Your task to perform on an android device: Clear the shopping cart on costco. Add logitech g pro to the cart on costco, then select checkout. Image 0: 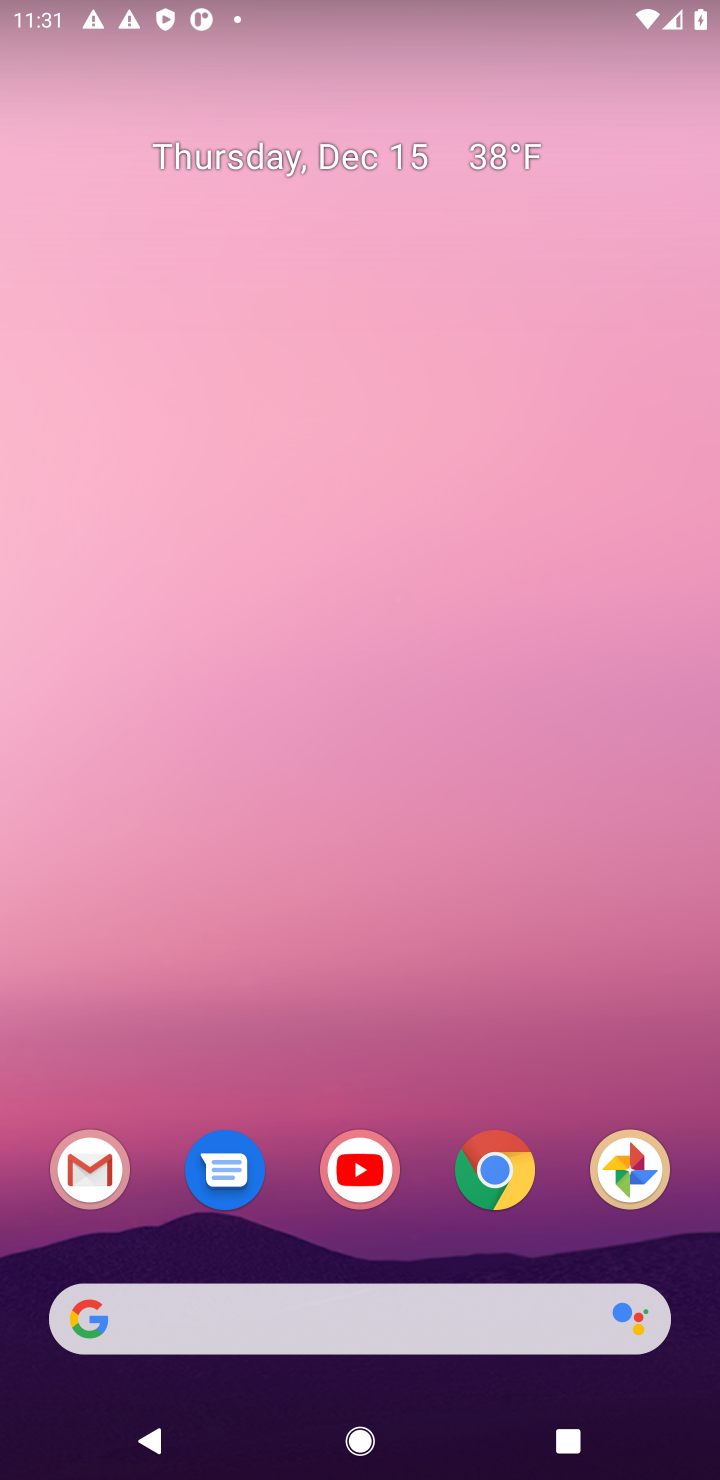
Step 0: click (496, 1183)
Your task to perform on an android device: Clear the shopping cart on costco. Add logitech g pro to the cart on costco, then select checkout. Image 1: 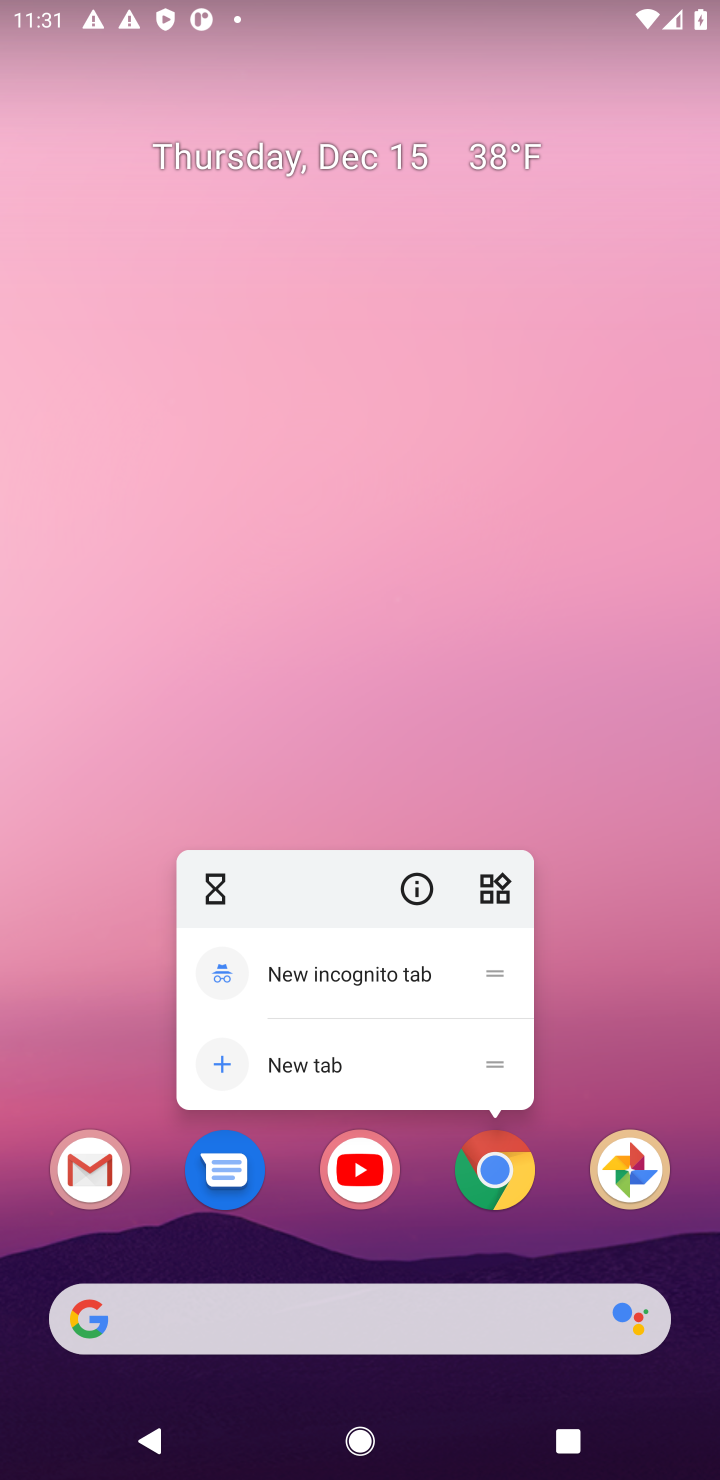
Step 1: click (497, 1183)
Your task to perform on an android device: Clear the shopping cart on costco. Add logitech g pro to the cart on costco, then select checkout. Image 2: 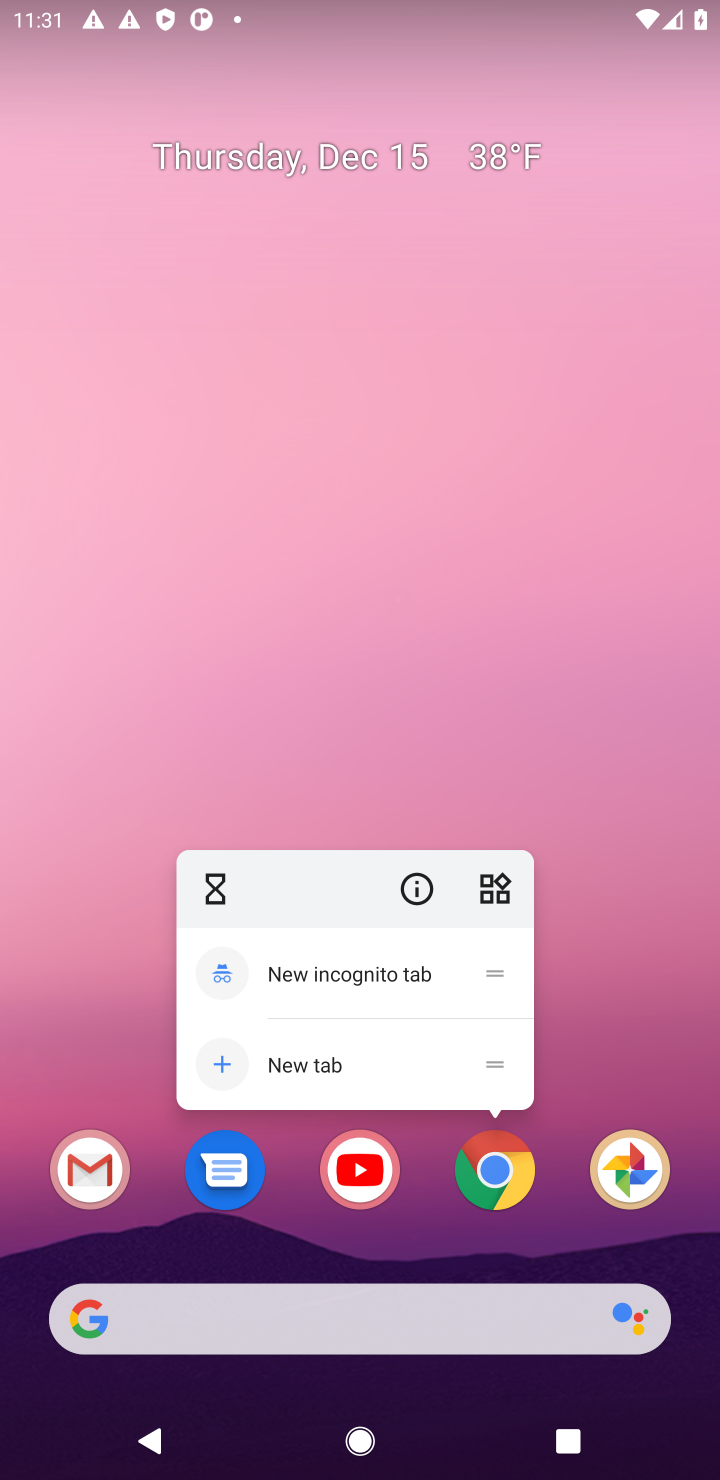
Step 2: click (497, 1183)
Your task to perform on an android device: Clear the shopping cart on costco. Add logitech g pro to the cart on costco, then select checkout. Image 3: 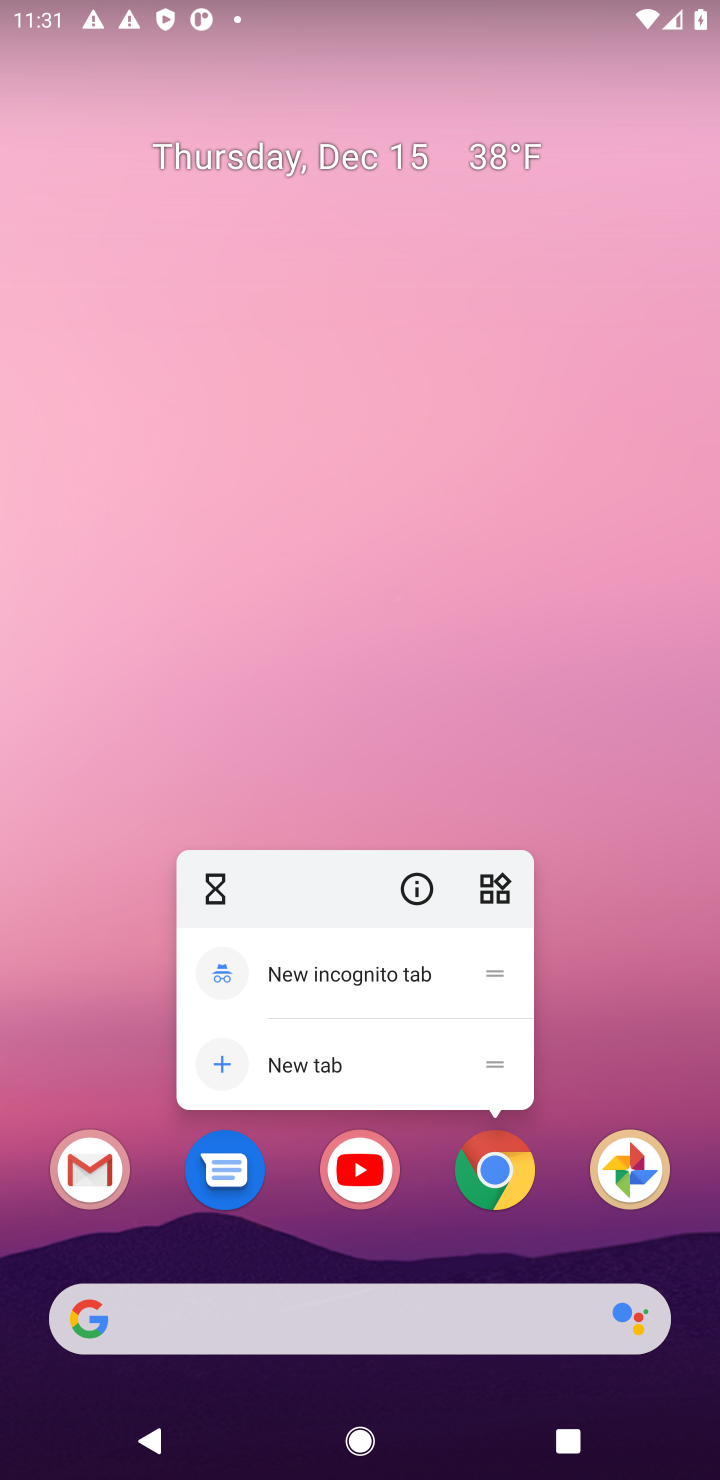
Step 3: click (503, 1173)
Your task to perform on an android device: Clear the shopping cart on costco. Add logitech g pro to the cart on costco, then select checkout. Image 4: 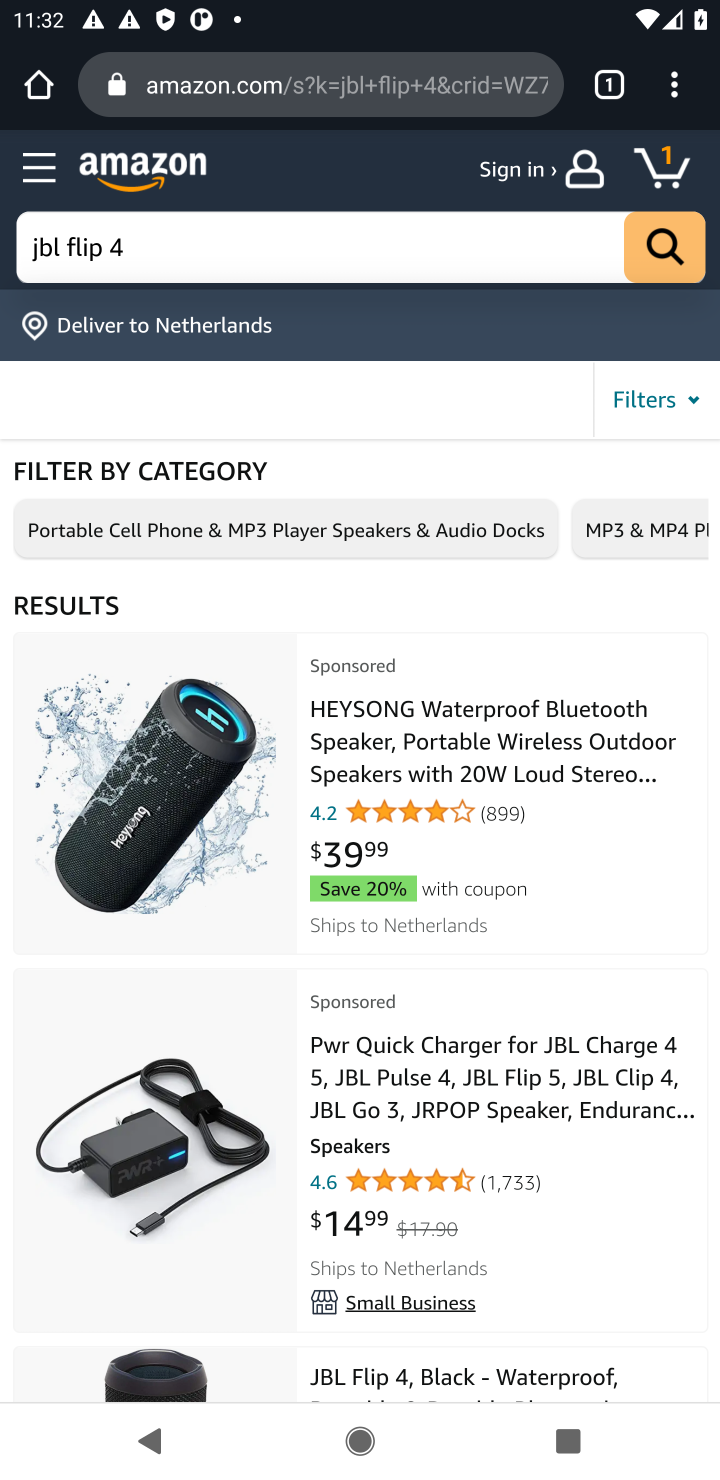
Step 4: click (229, 98)
Your task to perform on an android device: Clear the shopping cart on costco. Add logitech g pro to the cart on costco, then select checkout. Image 5: 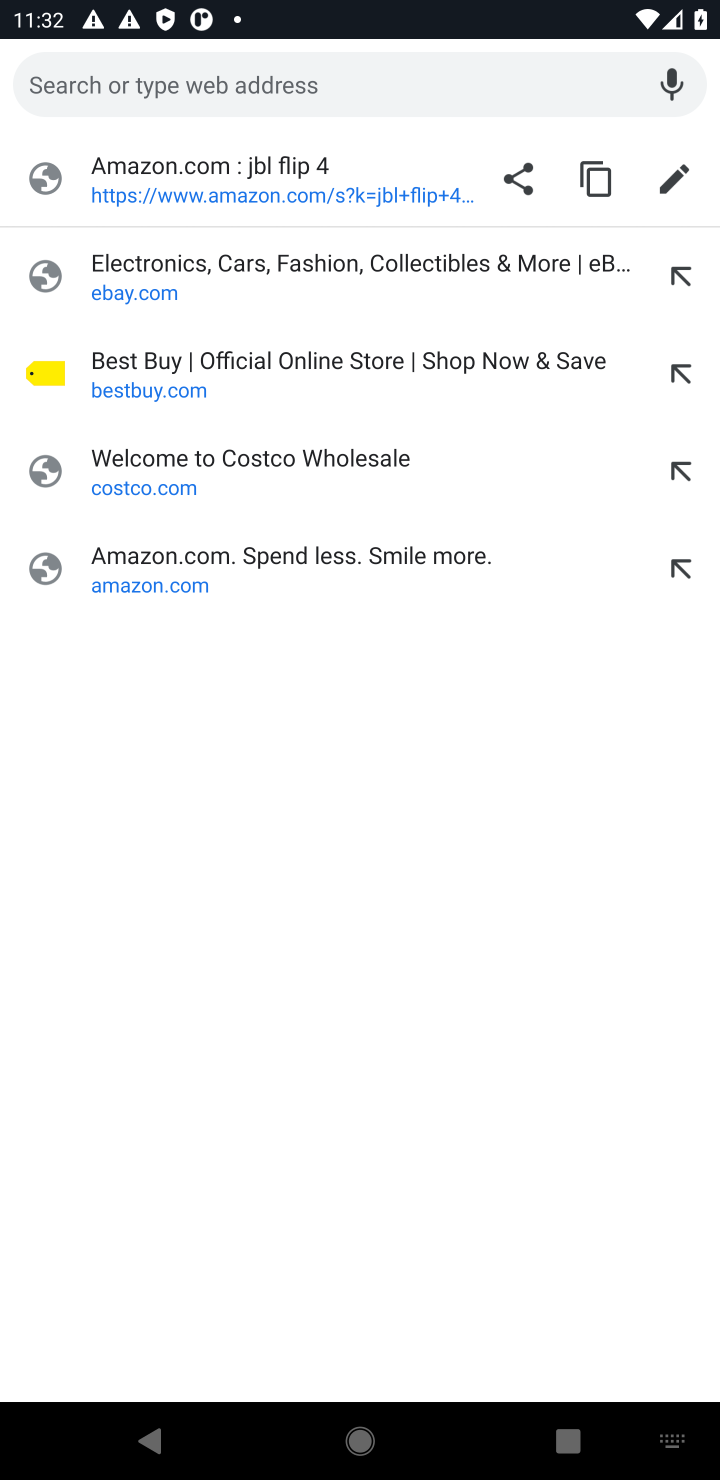
Step 5: click (102, 458)
Your task to perform on an android device: Clear the shopping cart on costco. Add logitech g pro to the cart on costco, then select checkout. Image 6: 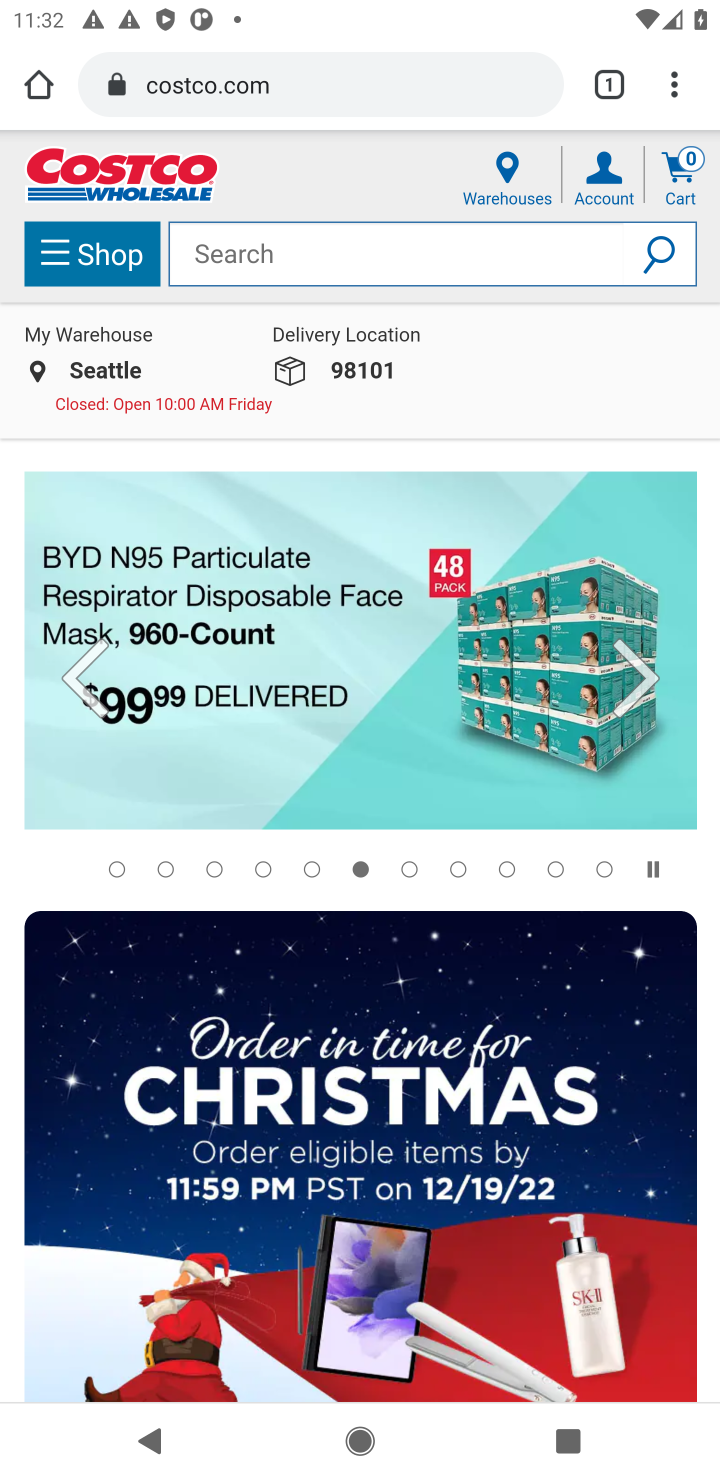
Step 6: click (689, 187)
Your task to perform on an android device: Clear the shopping cart on costco. Add logitech g pro to the cart on costco, then select checkout. Image 7: 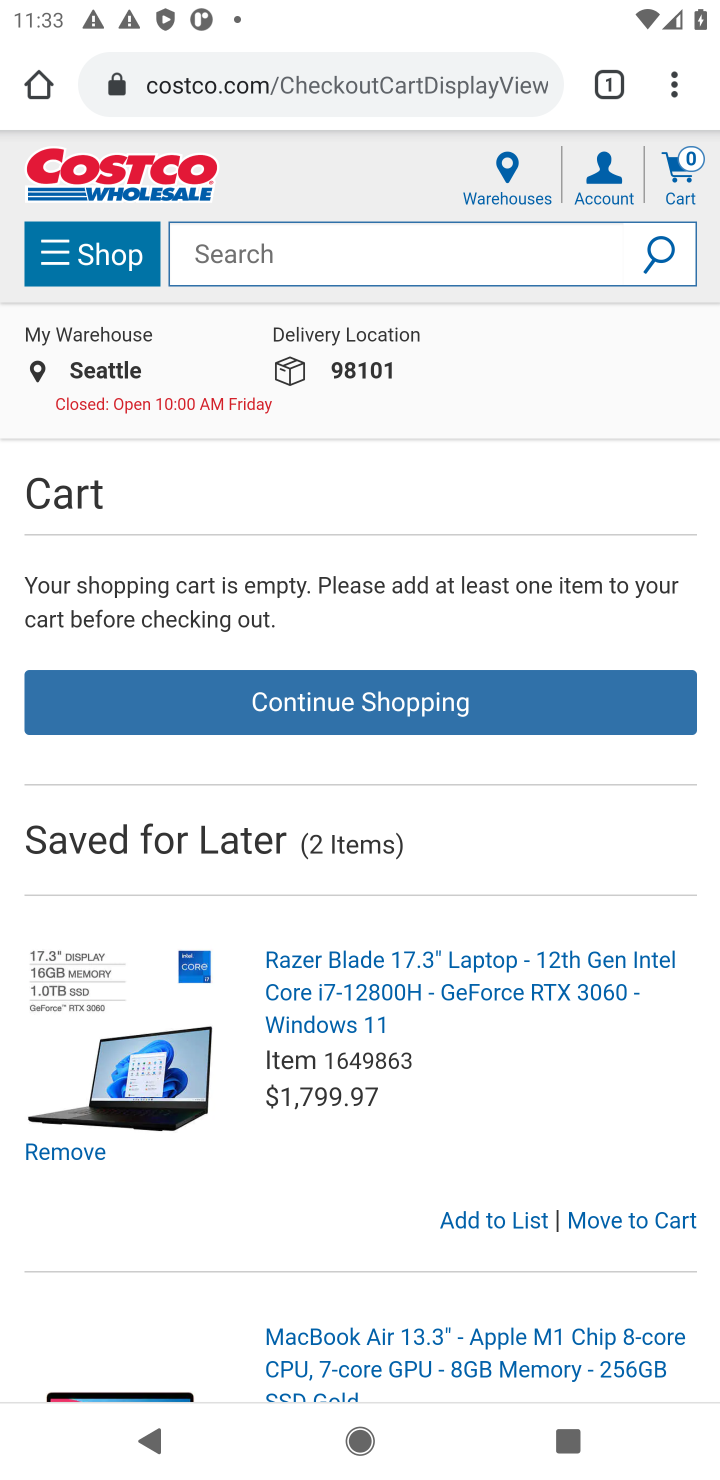
Step 7: click (258, 265)
Your task to perform on an android device: Clear the shopping cart on costco. Add logitech g pro to the cart on costco, then select checkout. Image 8: 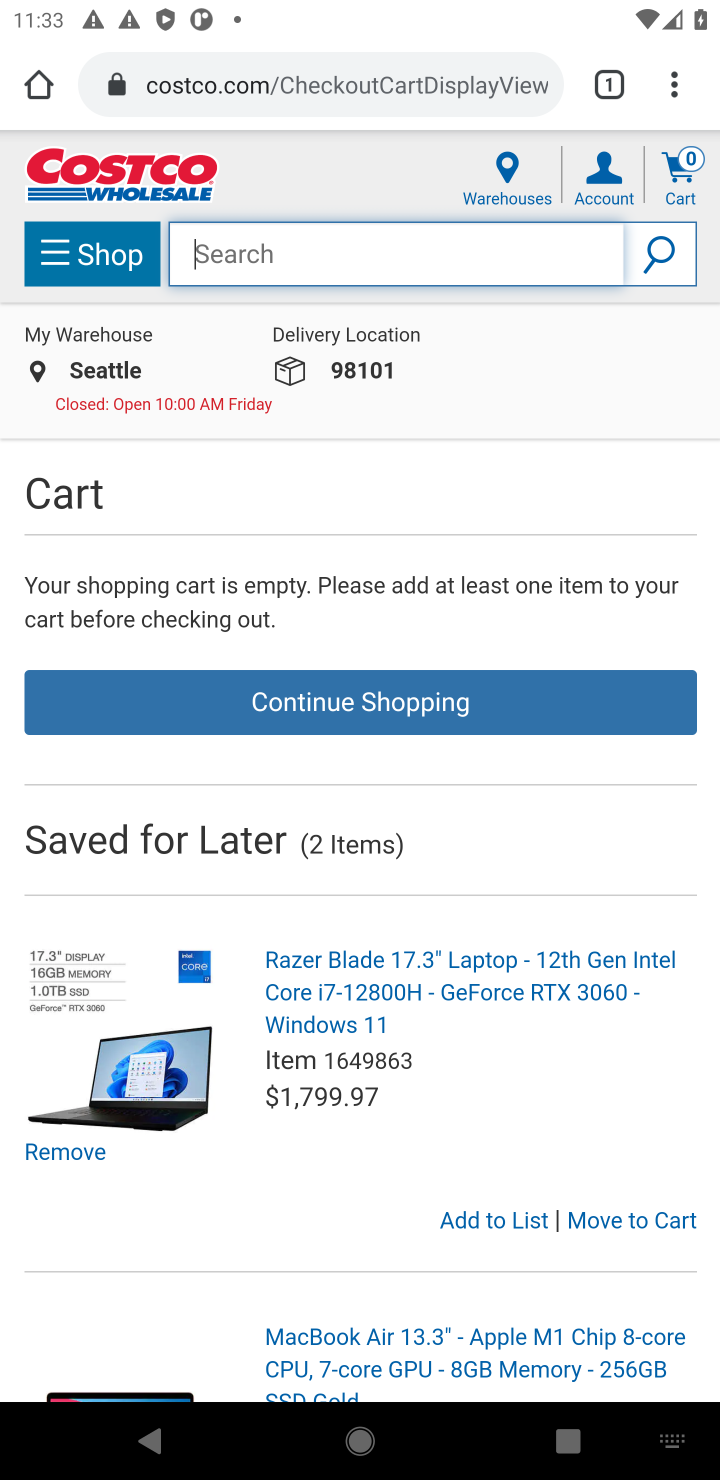
Step 8: type "logitech g pro"
Your task to perform on an android device: Clear the shopping cart on costco. Add logitech g pro to the cart on costco, then select checkout. Image 9: 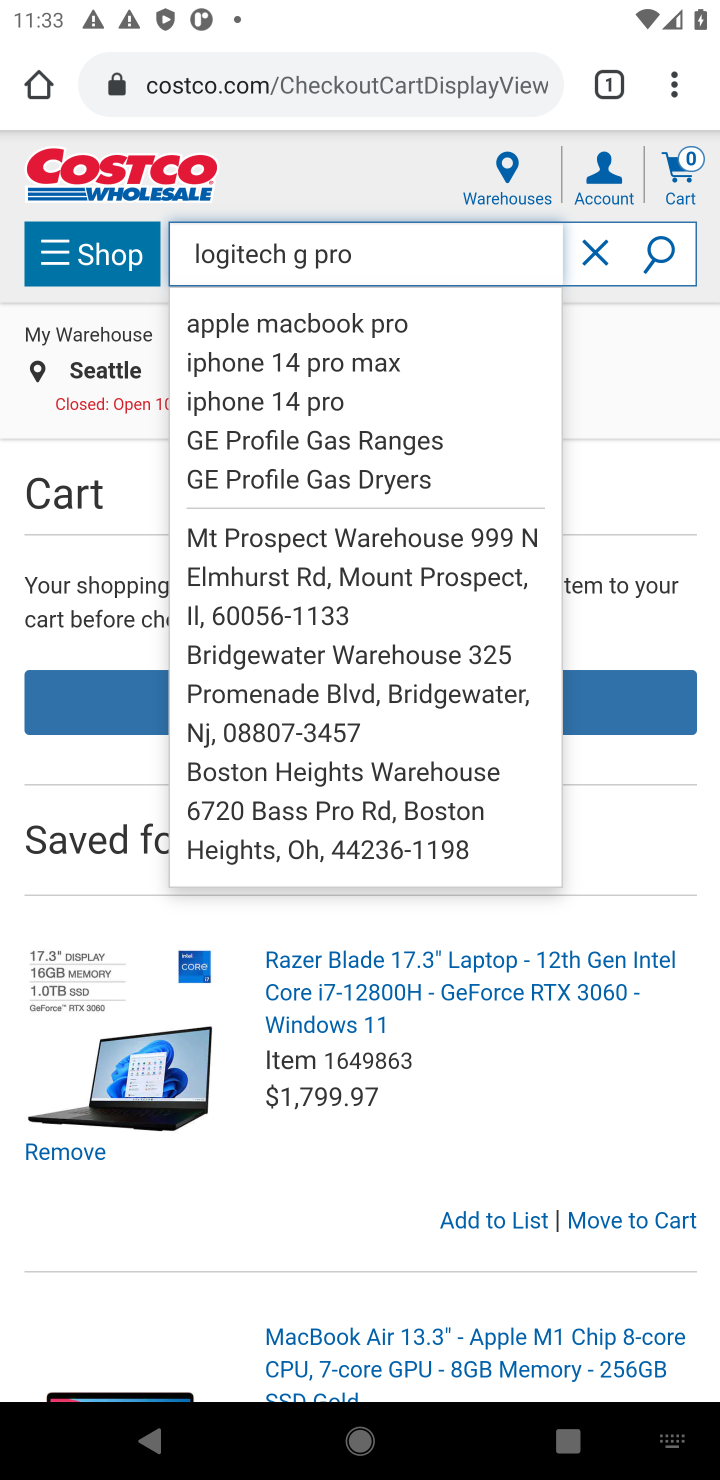
Step 9: click (652, 254)
Your task to perform on an android device: Clear the shopping cart on costco. Add logitech g pro to the cart on costco, then select checkout. Image 10: 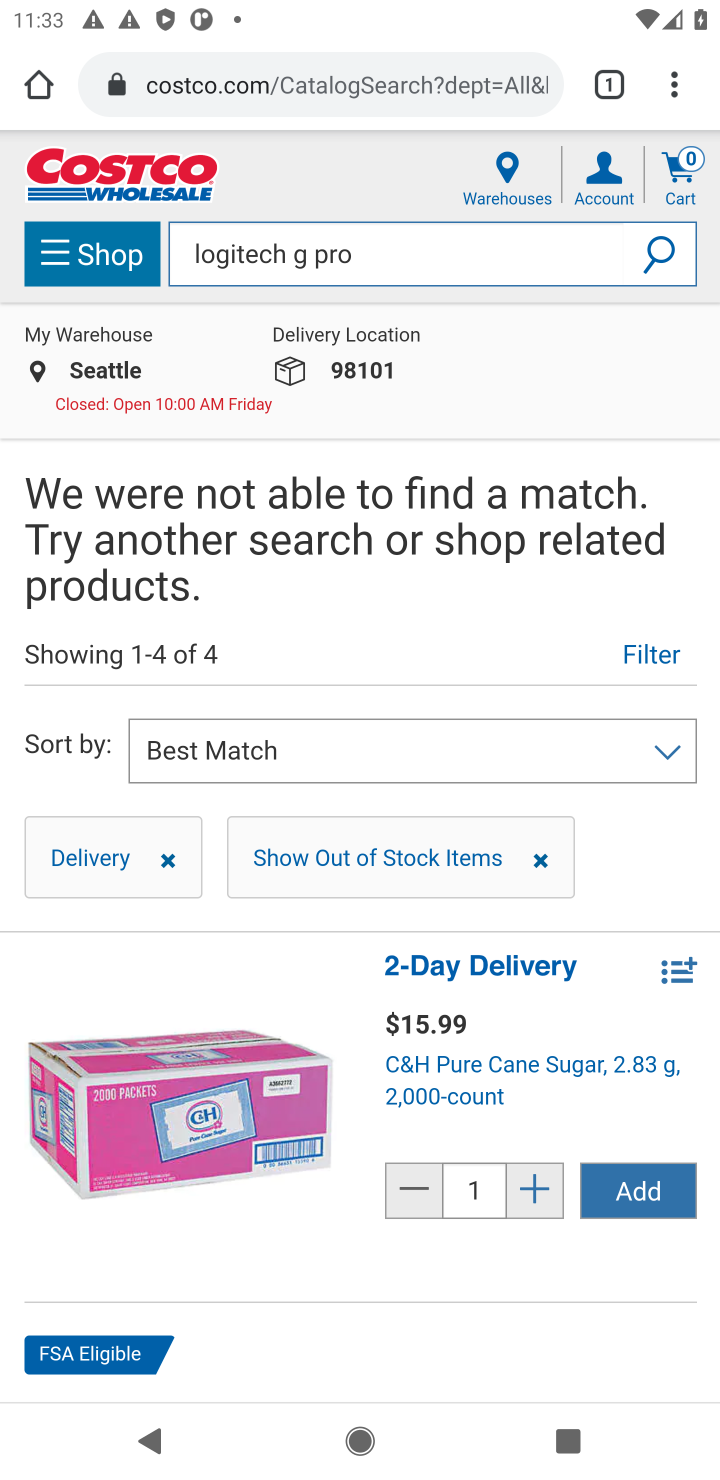
Step 10: task complete